Your task to perform on an android device: Open maps Image 0: 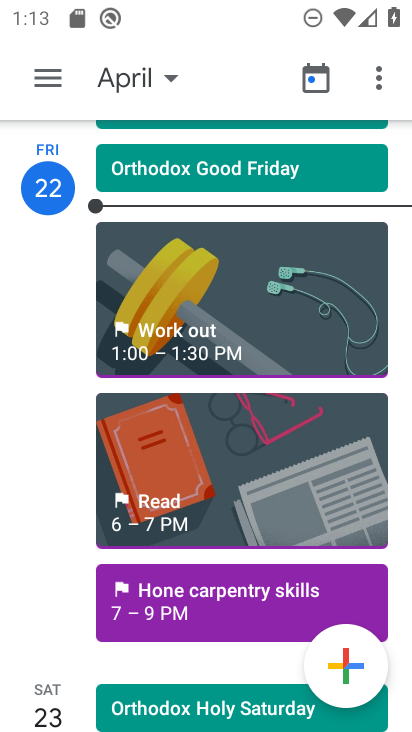
Step 0: press home button
Your task to perform on an android device: Open maps Image 1: 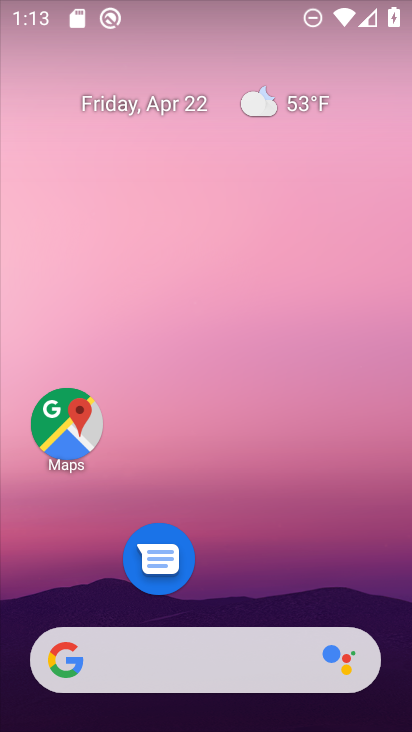
Step 1: drag from (216, 692) to (213, 230)
Your task to perform on an android device: Open maps Image 2: 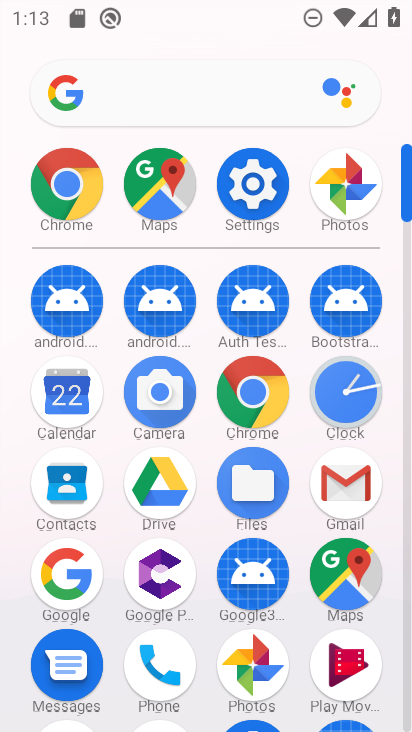
Step 2: click (344, 571)
Your task to perform on an android device: Open maps Image 3: 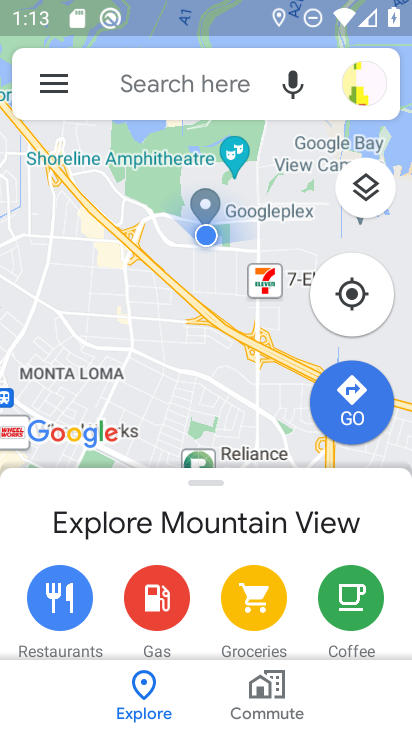
Step 3: task complete